Your task to perform on an android device: change notification settings in the gmail app Image 0: 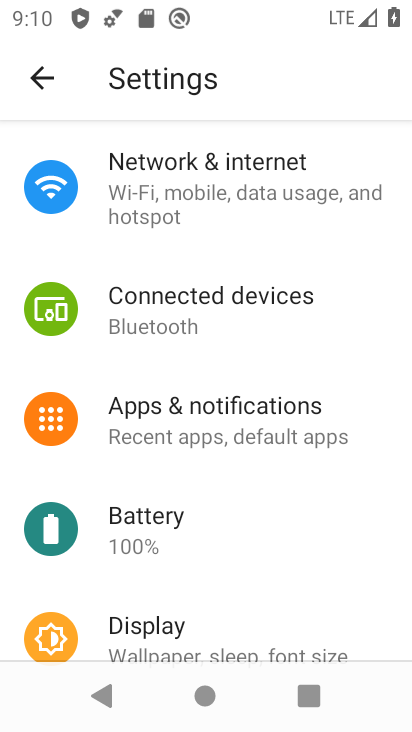
Step 0: press home button
Your task to perform on an android device: change notification settings in the gmail app Image 1: 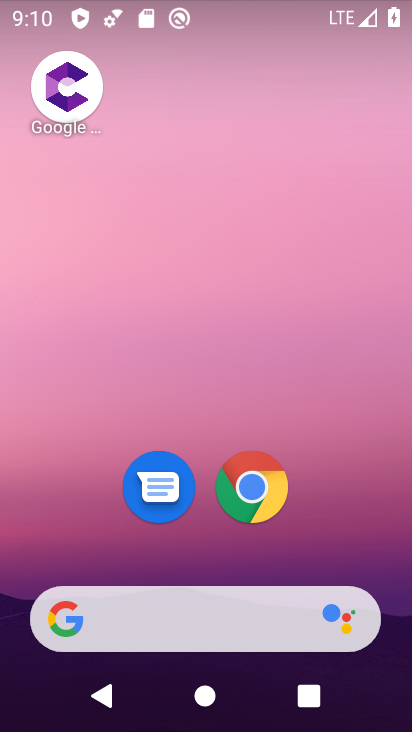
Step 1: drag from (327, 527) to (259, 103)
Your task to perform on an android device: change notification settings in the gmail app Image 2: 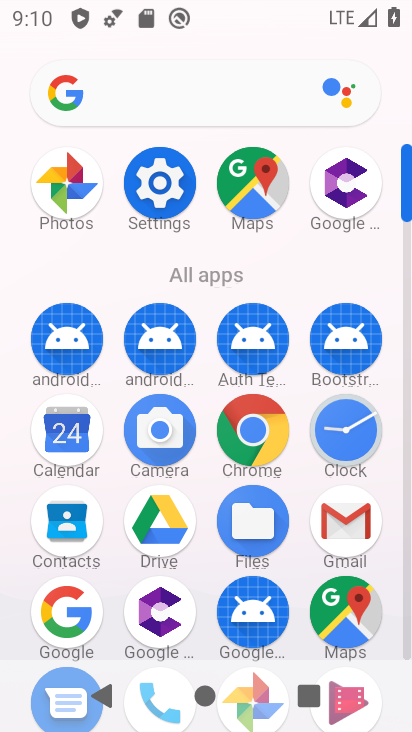
Step 2: click (346, 522)
Your task to perform on an android device: change notification settings in the gmail app Image 3: 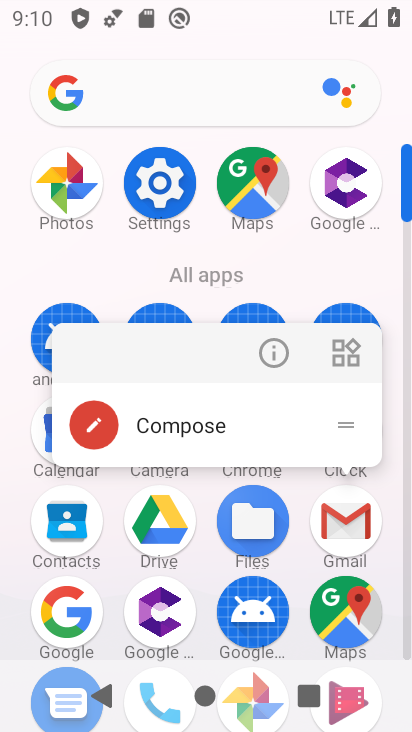
Step 3: click (284, 353)
Your task to perform on an android device: change notification settings in the gmail app Image 4: 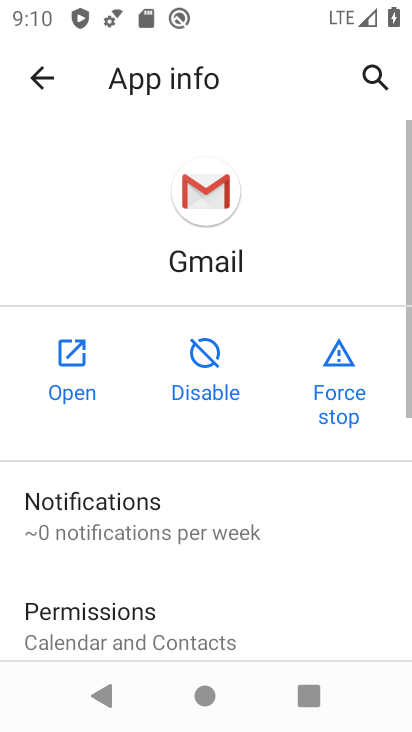
Step 4: click (137, 507)
Your task to perform on an android device: change notification settings in the gmail app Image 5: 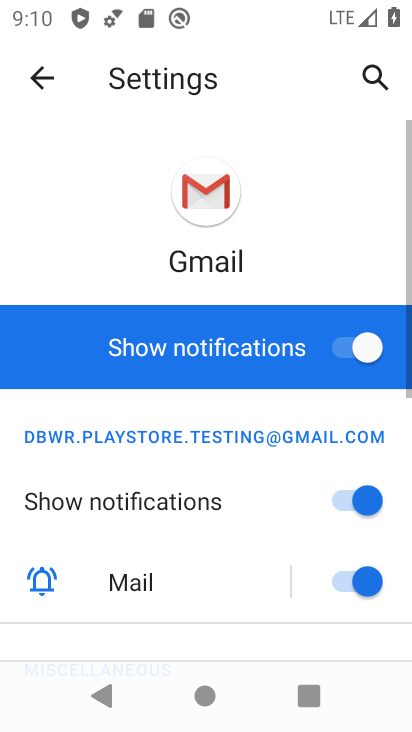
Step 5: click (342, 356)
Your task to perform on an android device: change notification settings in the gmail app Image 6: 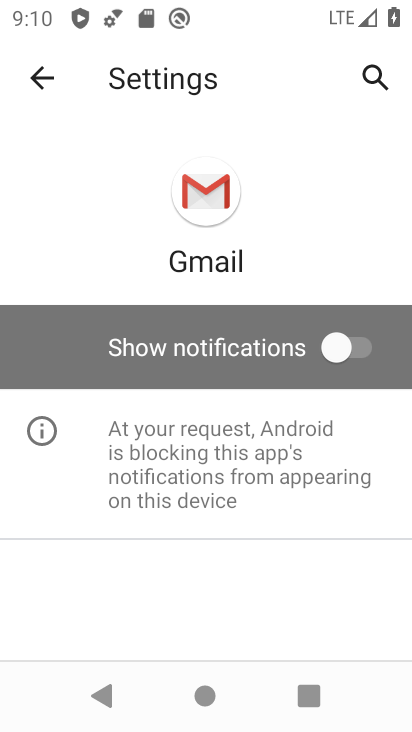
Step 6: task complete